Your task to perform on an android device: Go to CNN.com Image 0: 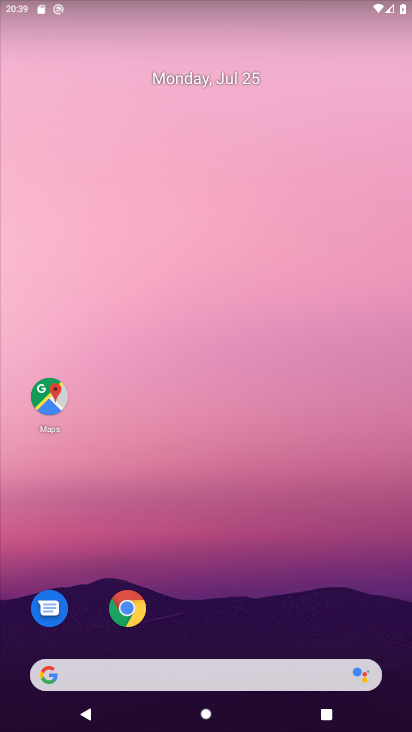
Step 0: click (123, 596)
Your task to perform on an android device: Go to CNN.com Image 1: 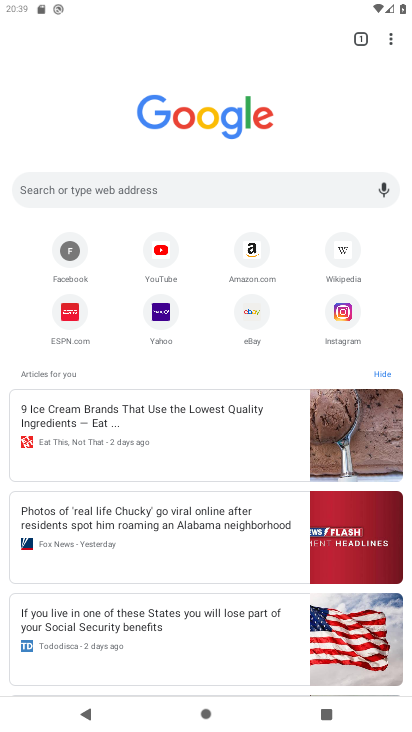
Step 1: click (140, 193)
Your task to perform on an android device: Go to CNN.com Image 2: 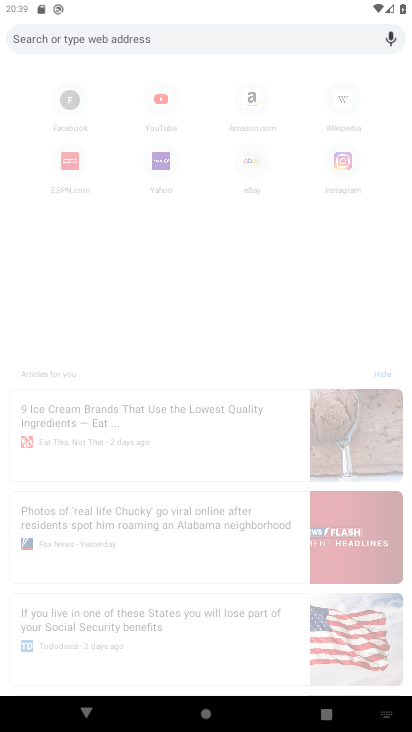
Step 2: type "CNN.com"
Your task to perform on an android device: Go to CNN.com Image 3: 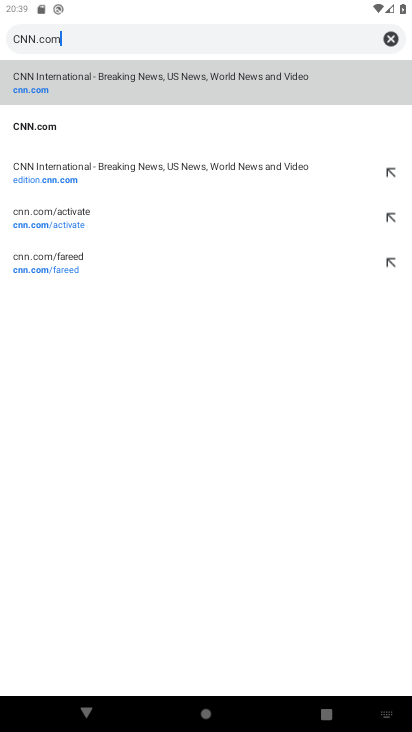
Step 3: click (188, 76)
Your task to perform on an android device: Go to CNN.com Image 4: 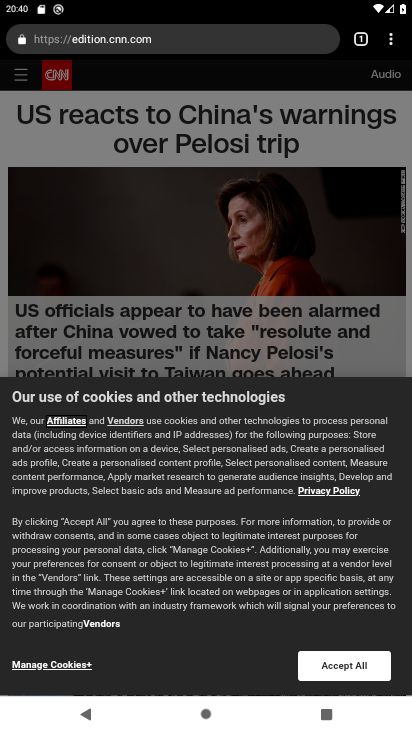
Step 4: task complete